Your task to perform on an android device: change the clock style Image 0: 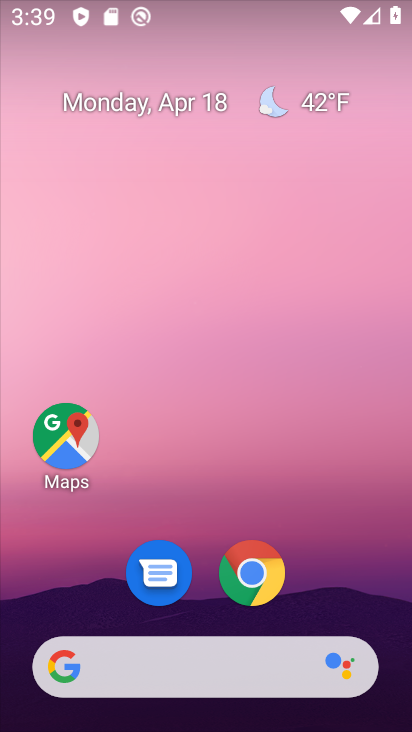
Step 0: drag from (181, 636) to (181, 228)
Your task to perform on an android device: change the clock style Image 1: 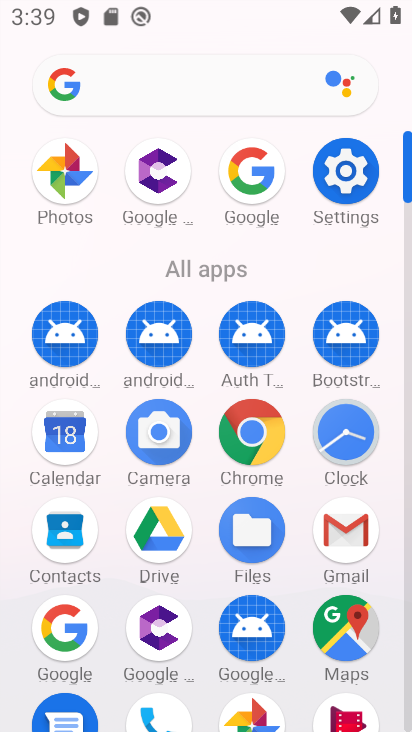
Step 1: click (347, 440)
Your task to perform on an android device: change the clock style Image 2: 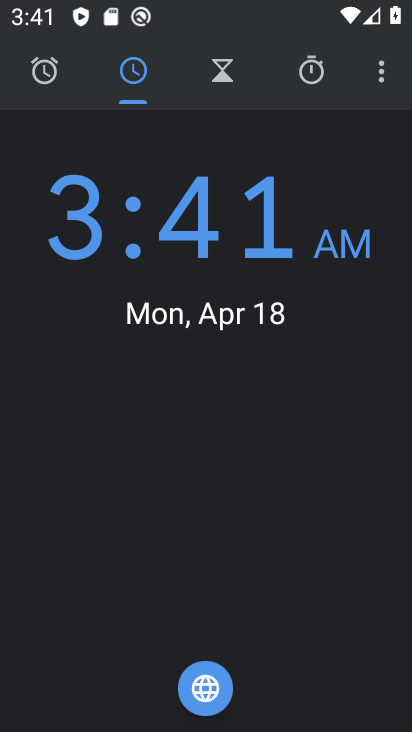
Step 2: click (379, 76)
Your task to perform on an android device: change the clock style Image 3: 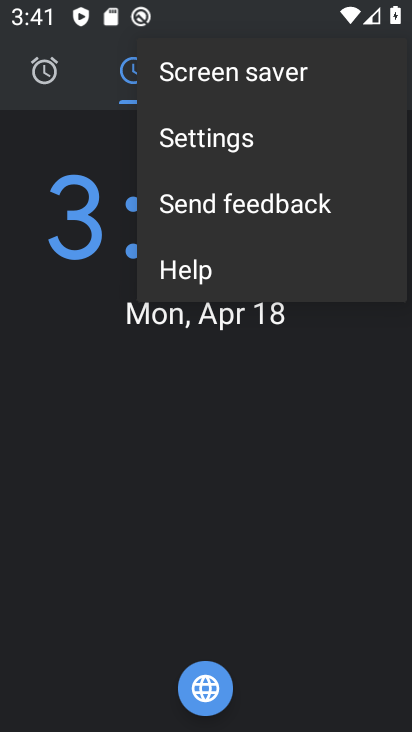
Step 3: click (229, 141)
Your task to perform on an android device: change the clock style Image 4: 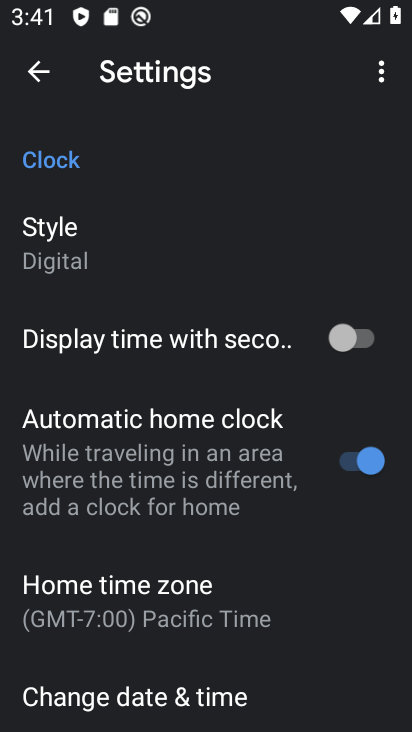
Step 4: click (87, 247)
Your task to perform on an android device: change the clock style Image 5: 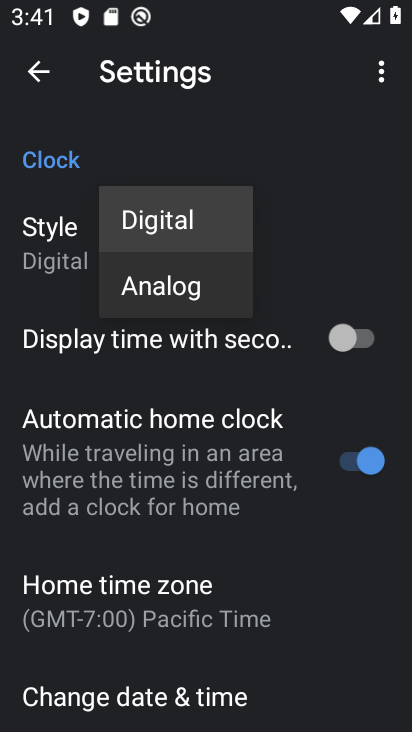
Step 5: click (136, 279)
Your task to perform on an android device: change the clock style Image 6: 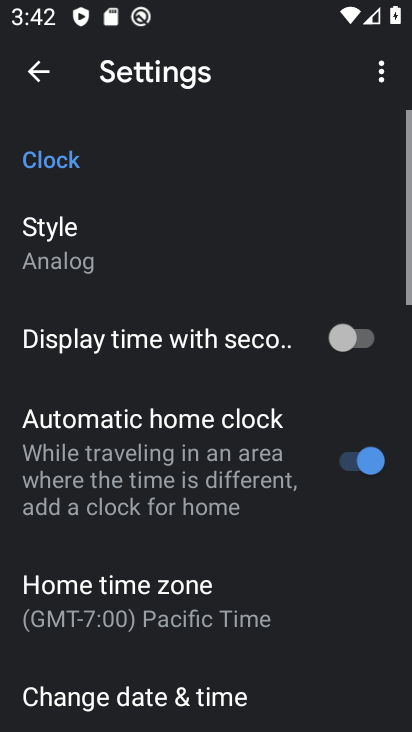
Step 6: task complete